Your task to perform on an android device: Is it going to rain today? Image 0: 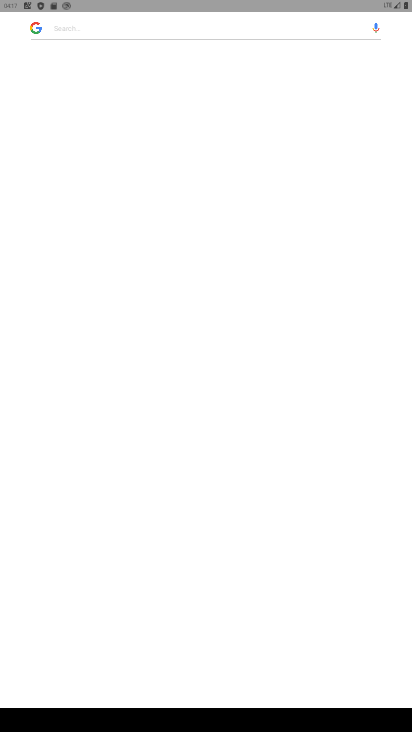
Step 0: drag from (280, 629) to (285, 294)
Your task to perform on an android device: Is it going to rain today? Image 1: 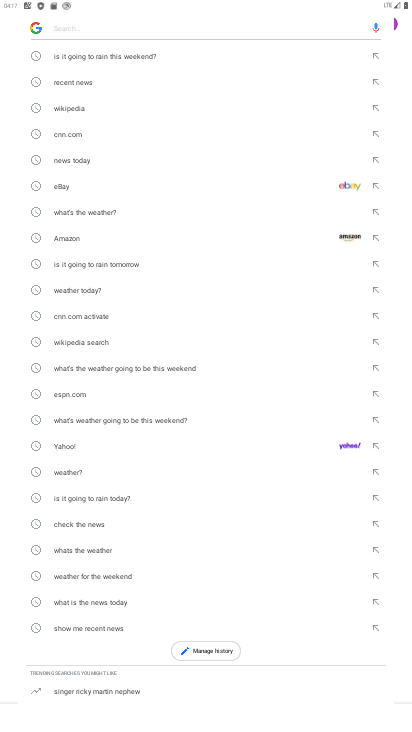
Step 1: press home button
Your task to perform on an android device: Is it going to rain today? Image 2: 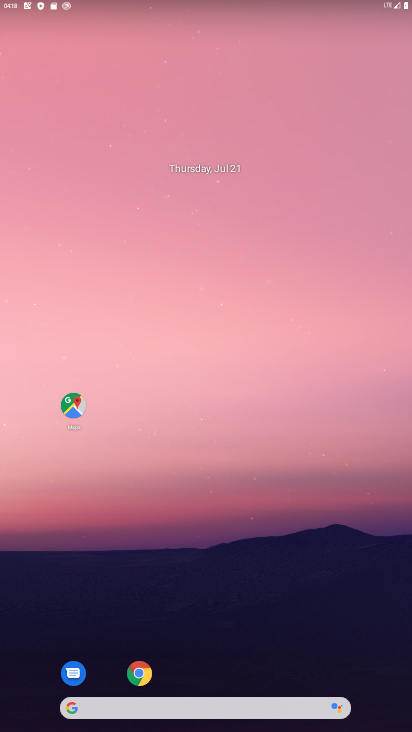
Step 2: drag from (353, 532) to (212, 100)
Your task to perform on an android device: Is it going to rain today? Image 3: 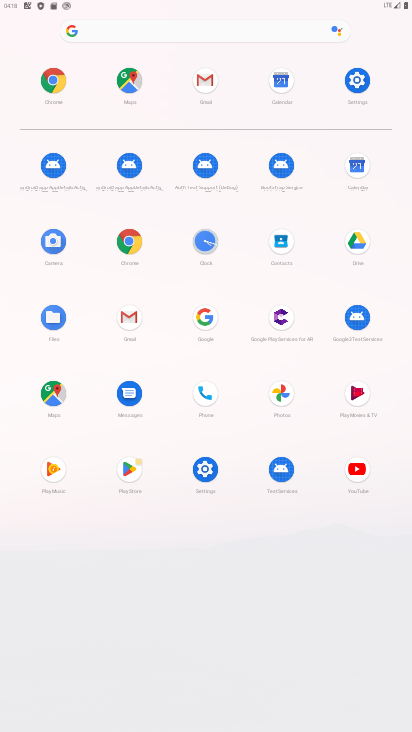
Step 3: click (135, 241)
Your task to perform on an android device: Is it going to rain today? Image 4: 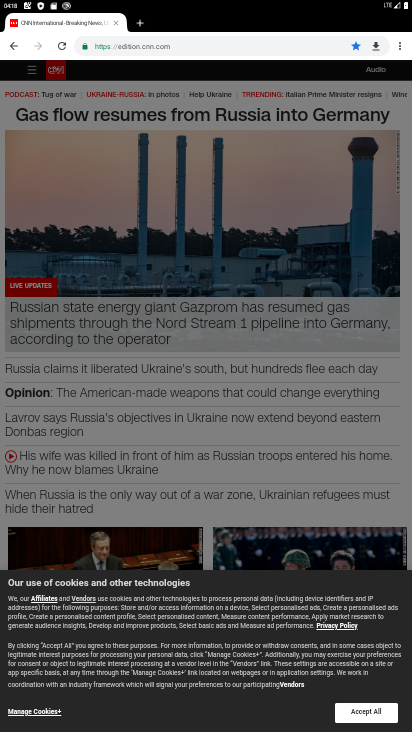
Step 4: click (172, 47)
Your task to perform on an android device: Is it going to rain today? Image 5: 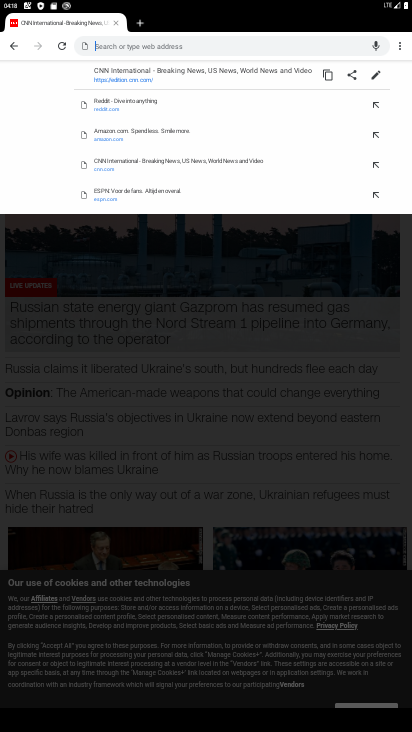
Step 5: type "weather"
Your task to perform on an android device: Is it going to rain today? Image 6: 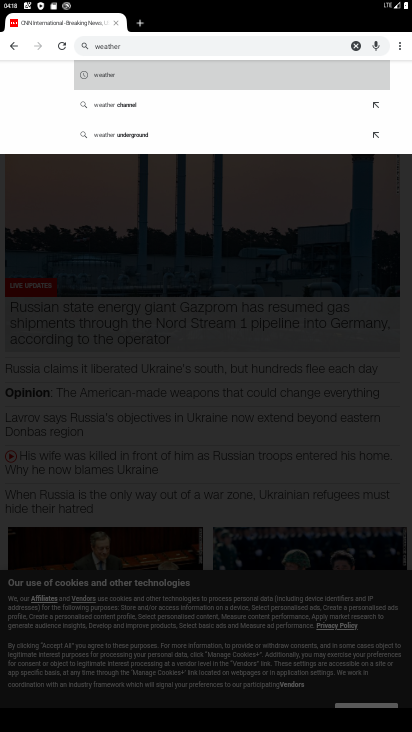
Step 6: click (104, 78)
Your task to perform on an android device: Is it going to rain today? Image 7: 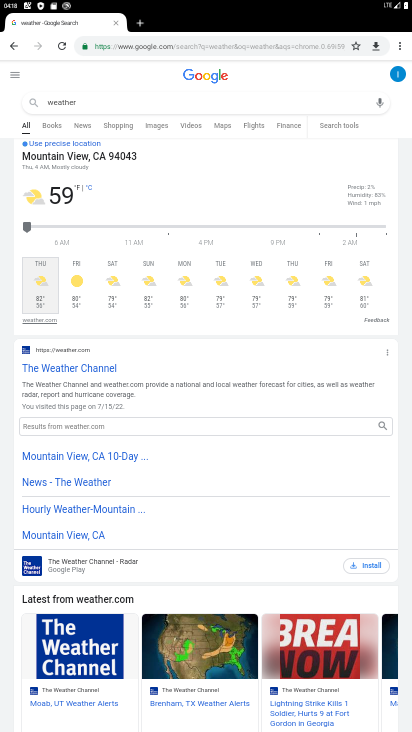
Step 7: task complete